Your task to perform on an android device: Go to ESPN.com Image 0: 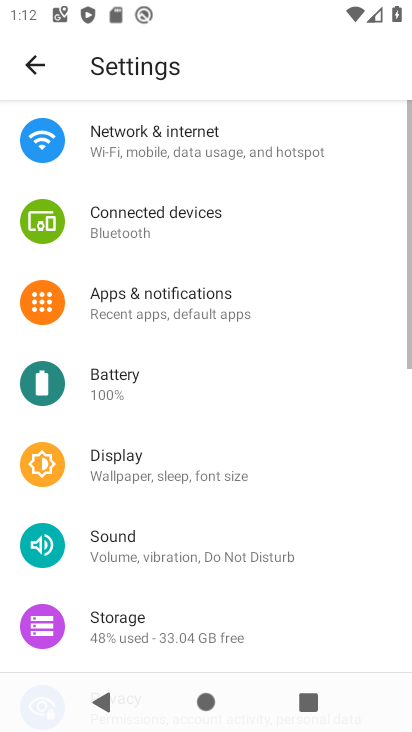
Step 0: press home button
Your task to perform on an android device: Go to ESPN.com Image 1: 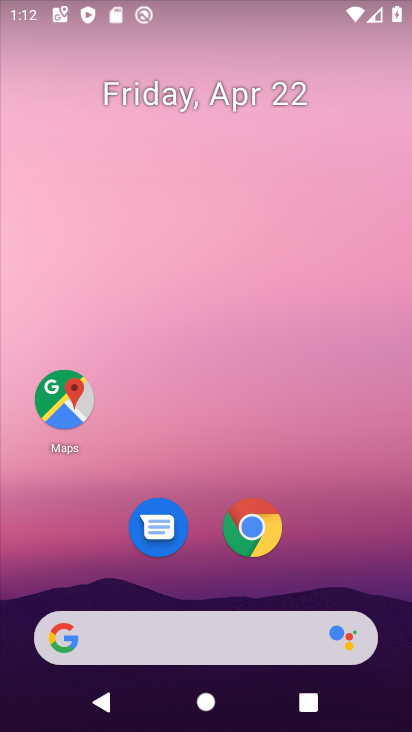
Step 1: click (176, 651)
Your task to perform on an android device: Go to ESPN.com Image 2: 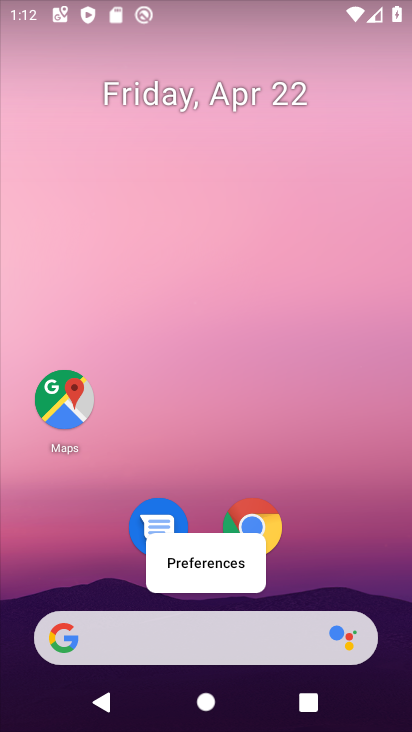
Step 2: click (176, 651)
Your task to perform on an android device: Go to ESPN.com Image 3: 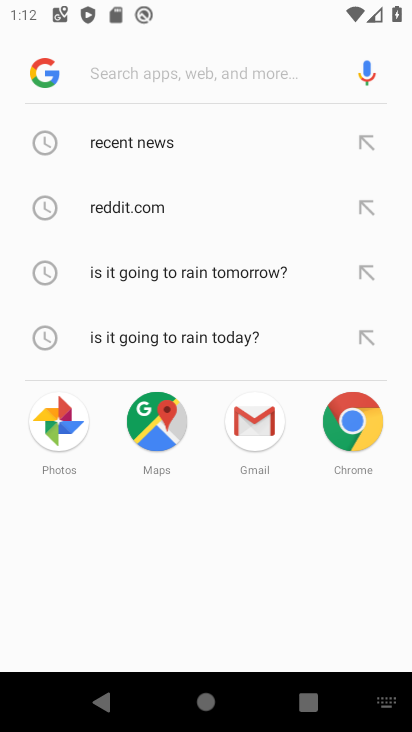
Step 3: click (56, 86)
Your task to perform on an android device: Go to ESPN.com Image 4: 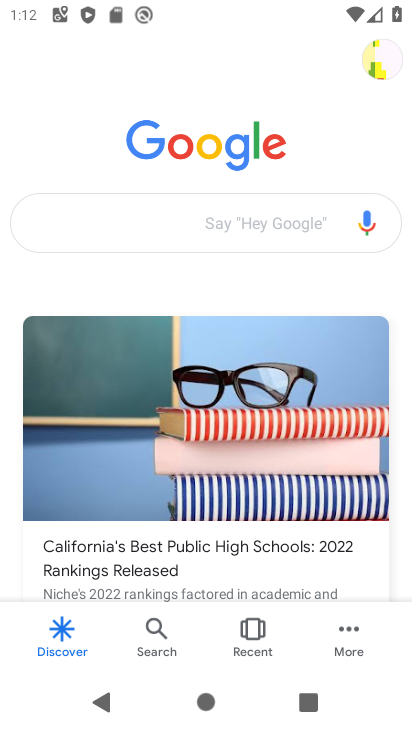
Step 4: click (175, 233)
Your task to perform on an android device: Go to ESPN.com Image 5: 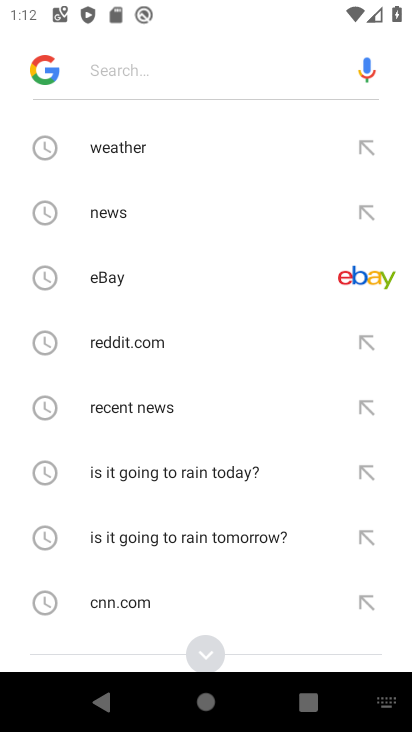
Step 5: type "espn.com"
Your task to perform on an android device: Go to ESPN.com Image 6: 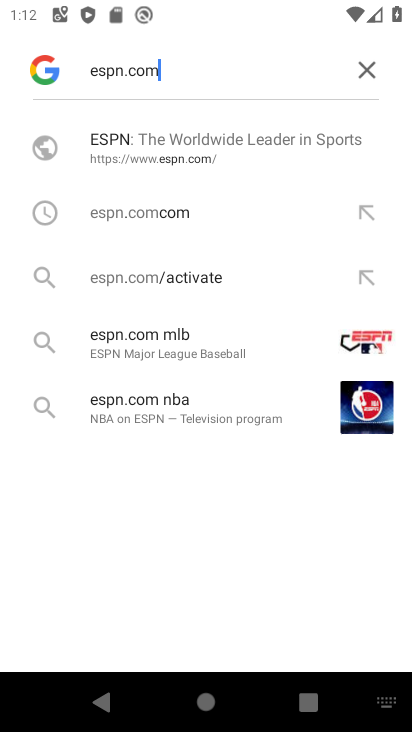
Step 6: click (127, 188)
Your task to perform on an android device: Go to ESPN.com Image 7: 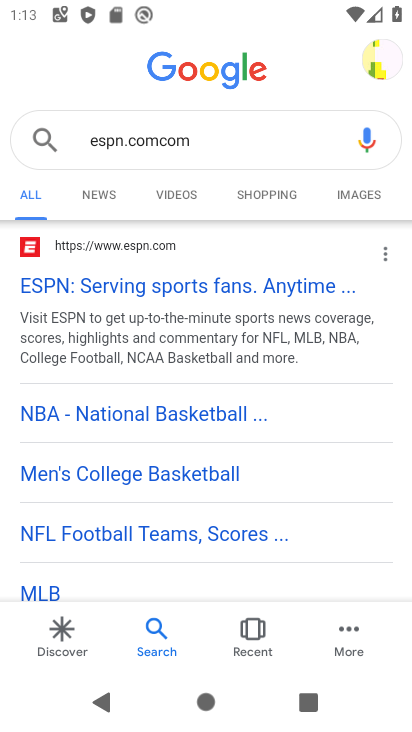
Step 7: task complete